Your task to perform on an android device: set default search engine in the chrome app Image 0: 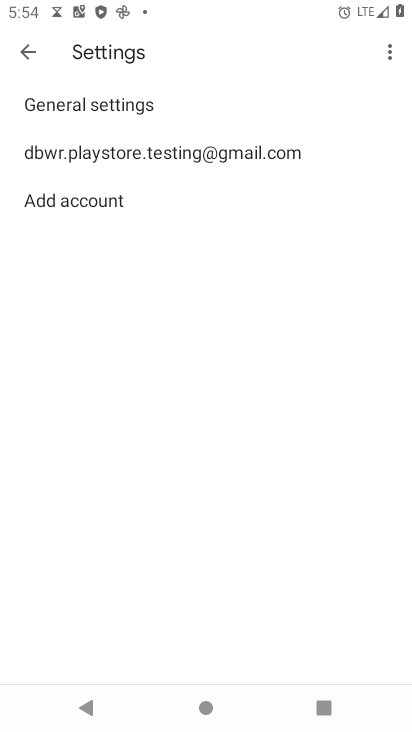
Step 0: press home button
Your task to perform on an android device: set default search engine in the chrome app Image 1: 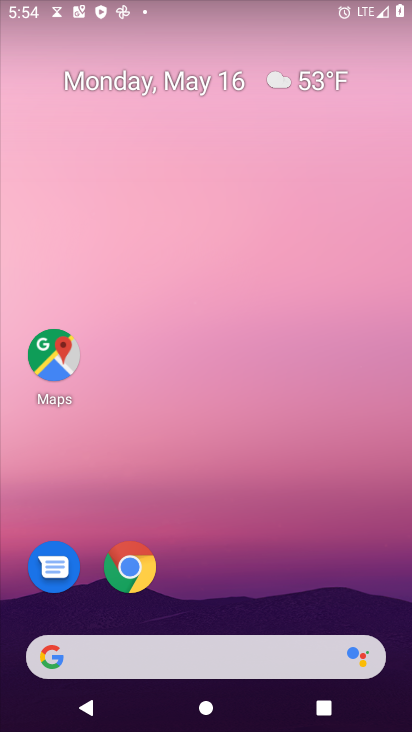
Step 1: drag from (160, 652) to (277, 7)
Your task to perform on an android device: set default search engine in the chrome app Image 2: 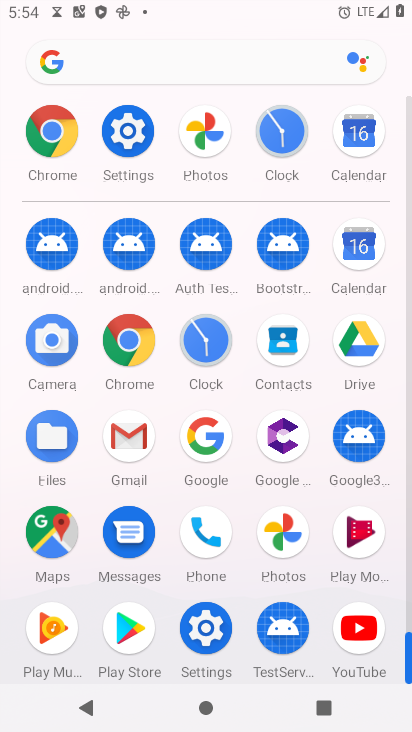
Step 2: click (146, 341)
Your task to perform on an android device: set default search engine in the chrome app Image 3: 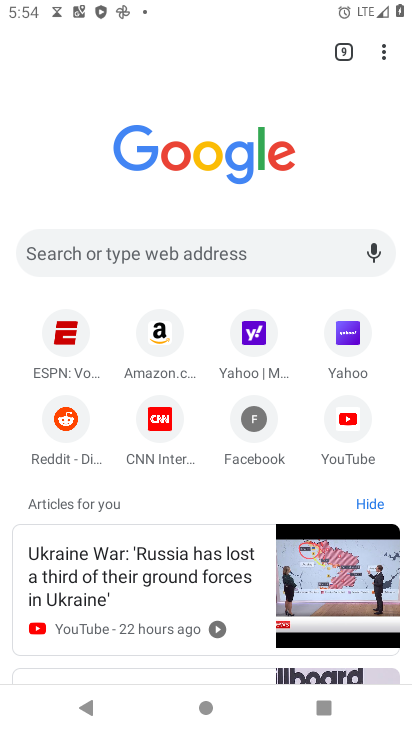
Step 3: click (380, 54)
Your task to perform on an android device: set default search engine in the chrome app Image 4: 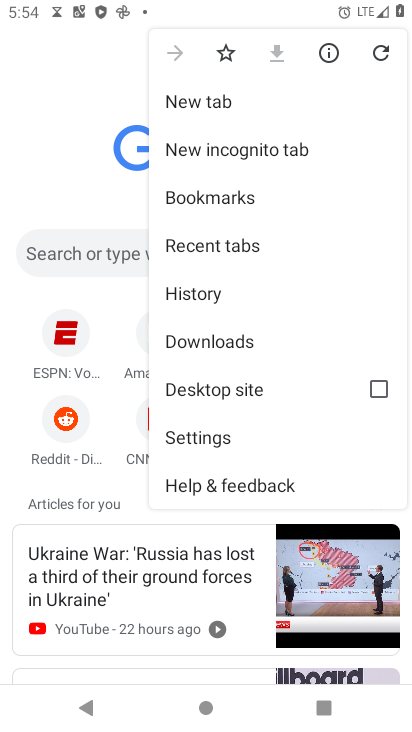
Step 4: click (195, 435)
Your task to perform on an android device: set default search engine in the chrome app Image 5: 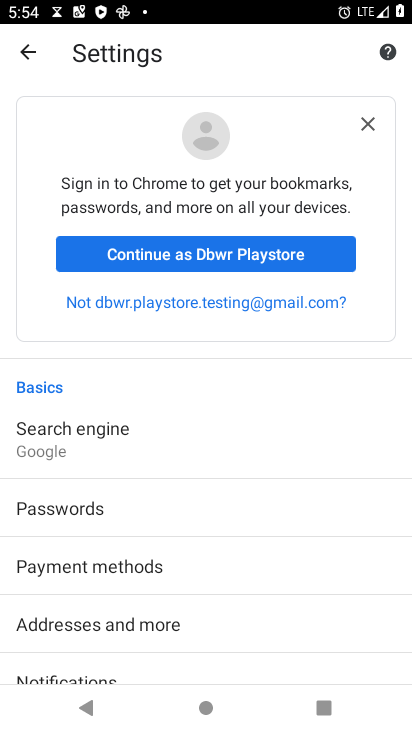
Step 5: drag from (127, 623) to (131, 416)
Your task to perform on an android device: set default search engine in the chrome app Image 6: 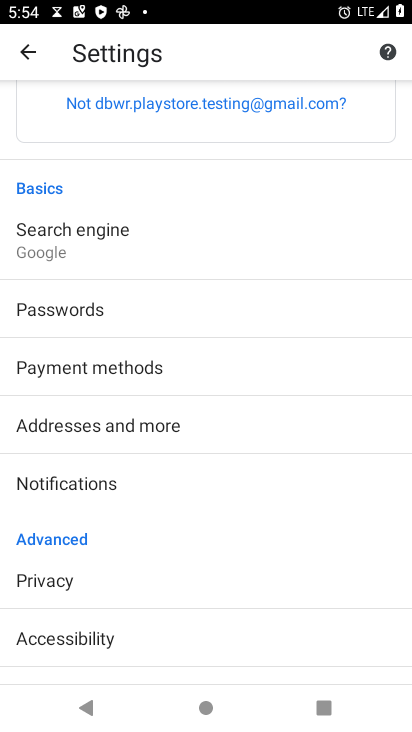
Step 6: click (77, 249)
Your task to perform on an android device: set default search engine in the chrome app Image 7: 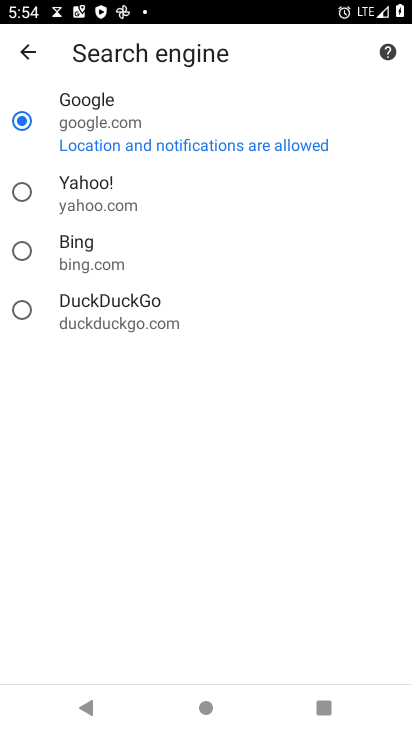
Step 7: task complete